Your task to perform on an android device: manage bookmarks in the chrome app Image 0: 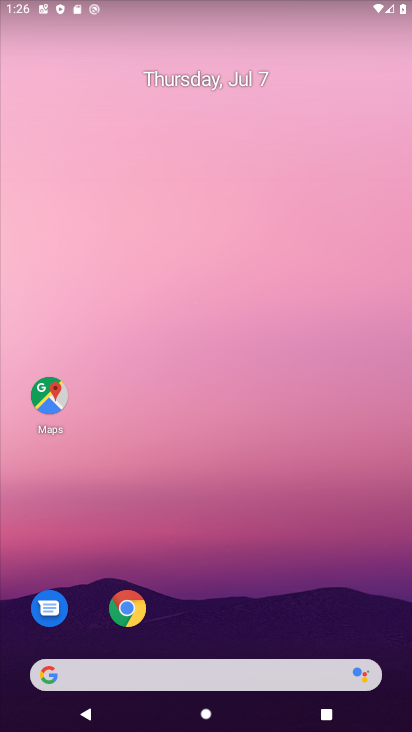
Step 0: drag from (346, 535) to (384, 9)
Your task to perform on an android device: manage bookmarks in the chrome app Image 1: 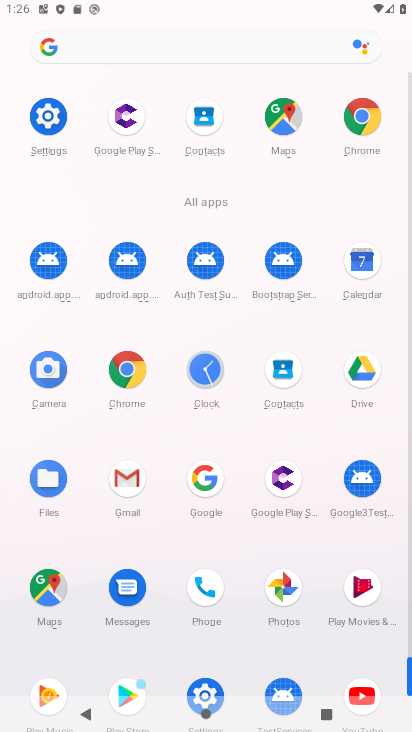
Step 1: click (135, 364)
Your task to perform on an android device: manage bookmarks in the chrome app Image 2: 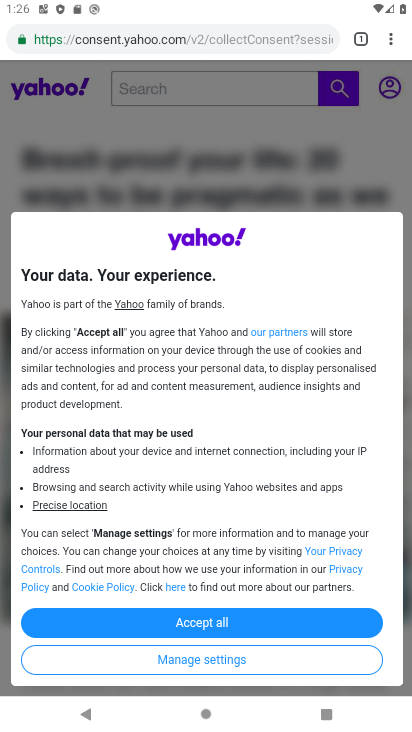
Step 2: click (391, 42)
Your task to perform on an android device: manage bookmarks in the chrome app Image 3: 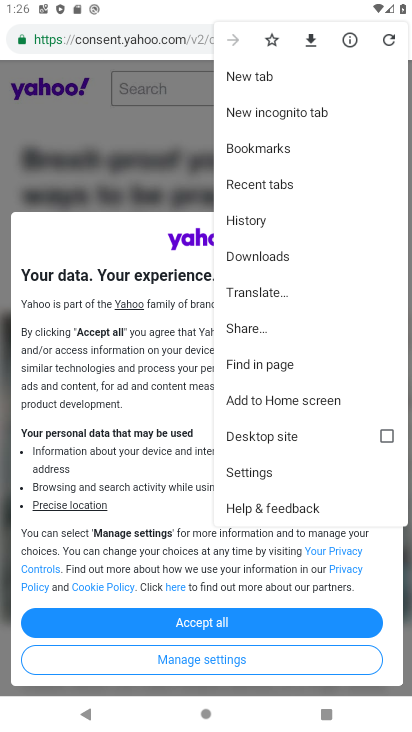
Step 3: click (298, 155)
Your task to perform on an android device: manage bookmarks in the chrome app Image 4: 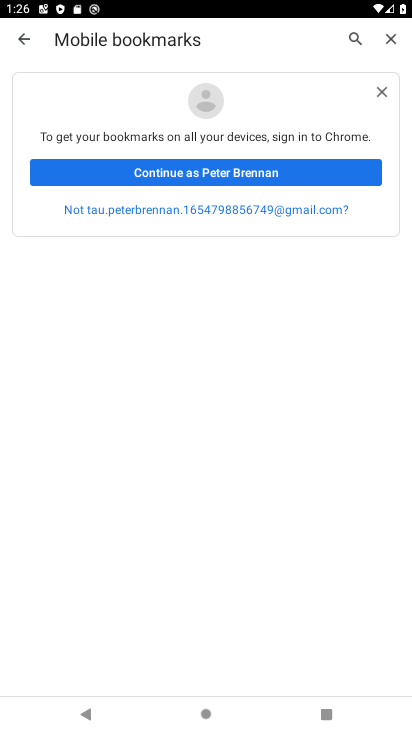
Step 4: task complete